Your task to perform on an android device: Open Google Chrome and open the bookmarks view Image 0: 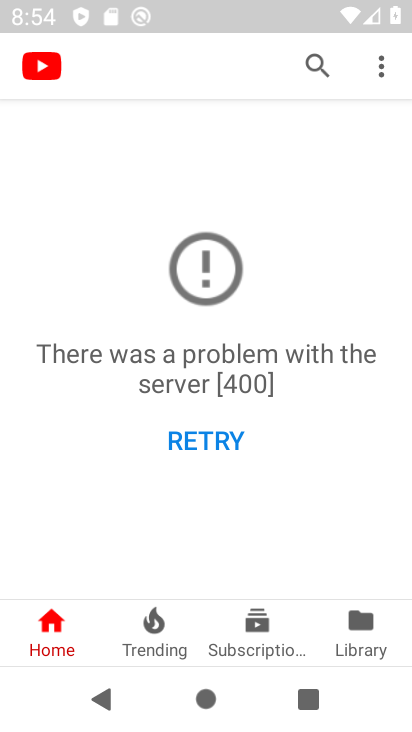
Step 0: press back button
Your task to perform on an android device: Open Google Chrome and open the bookmarks view Image 1: 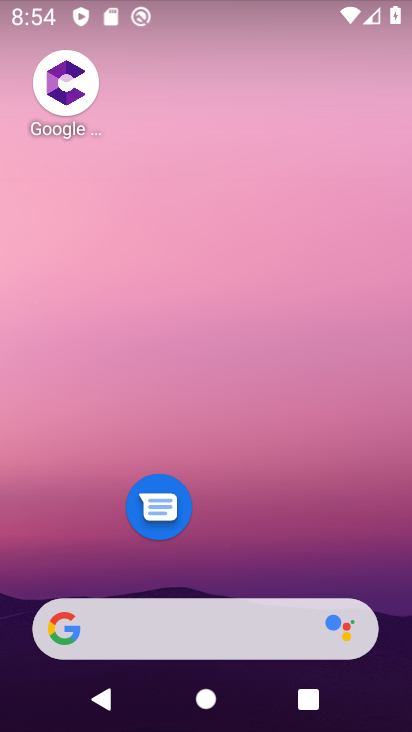
Step 1: drag from (78, 404) to (316, 458)
Your task to perform on an android device: Open Google Chrome and open the bookmarks view Image 2: 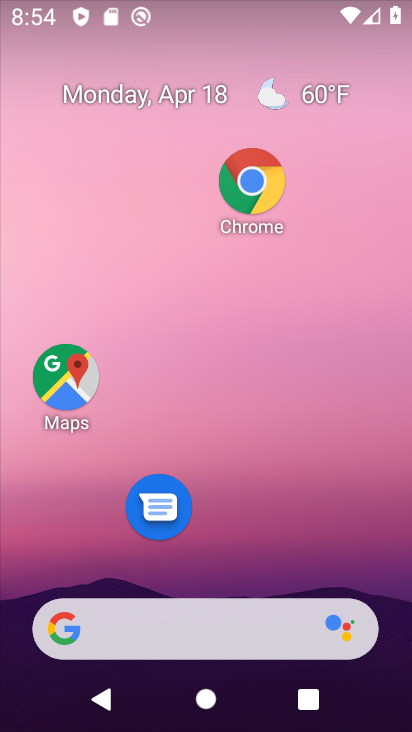
Step 2: click (264, 171)
Your task to perform on an android device: Open Google Chrome and open the bookmarks view Image 3: 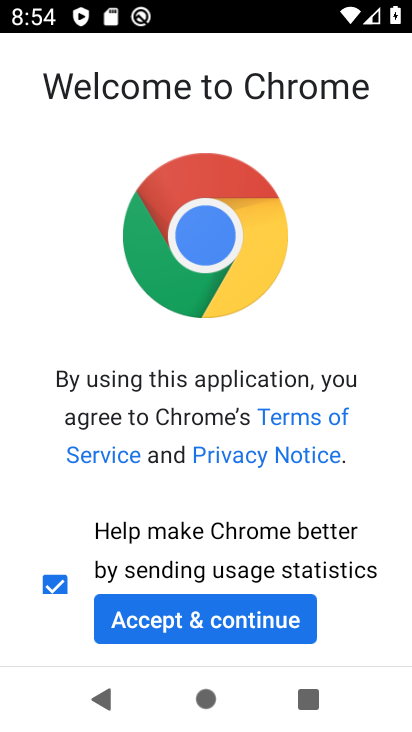
Step 3: click (184, 618)
Your task to perform on an android device: Open Google Chrome and open the bookmarks view Image 4: 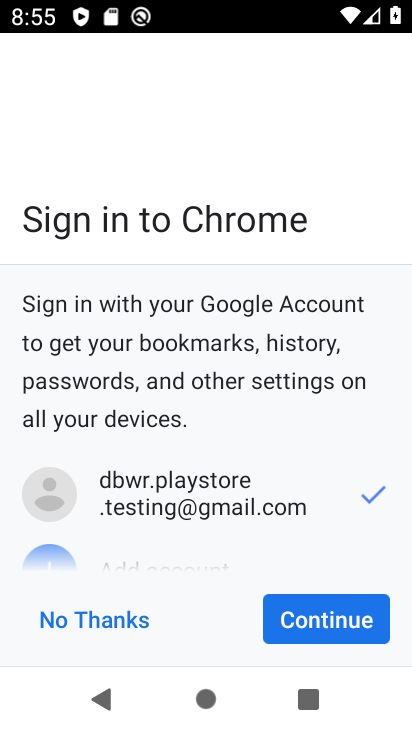
Step 4: click (279, 612)
Your task to perform on an android device: Open Google Chrome and open the bookmarks view Image 5: 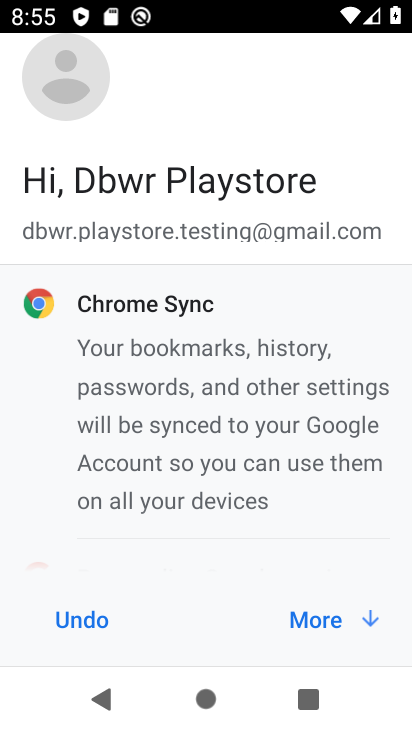
Step 5: click (307, 609)
Your task to perform on an android device: Open Google Chrome and open the bookmarks view Image 6: 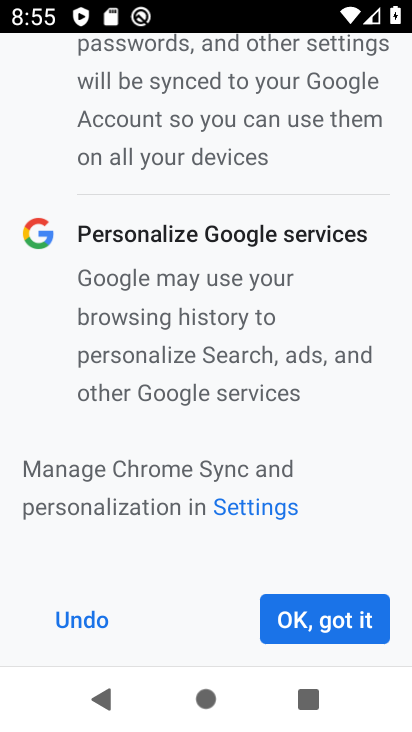
Step 6: click (307, 609)
Your task to perform on an android device: Open Google Chrome and open the bookmarks view Image 7: 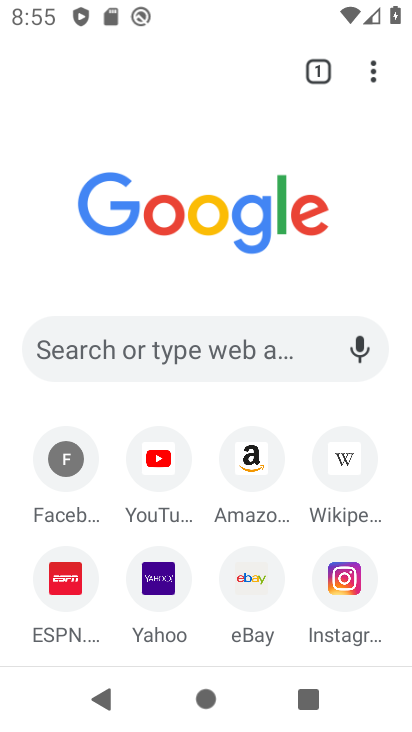
Step 7: click (382, 69)
Your task to perform on an android device: Open Google Chrome and open the bookmarks view Image 8: 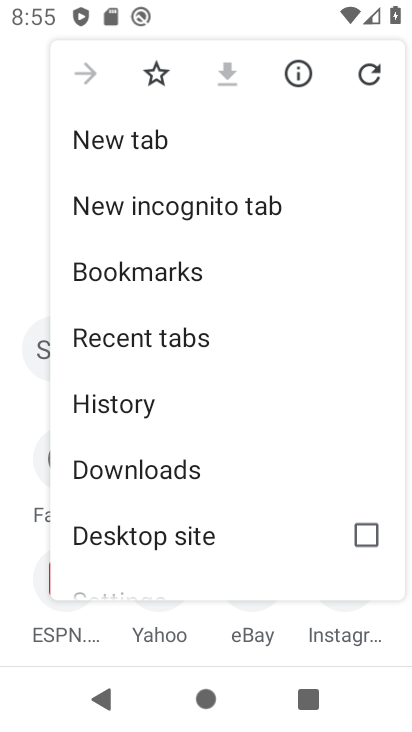
Step 8: click (122, 280)
Your task to perform on an android device: Open Google Chrome and open the bookmarks view Image 9: 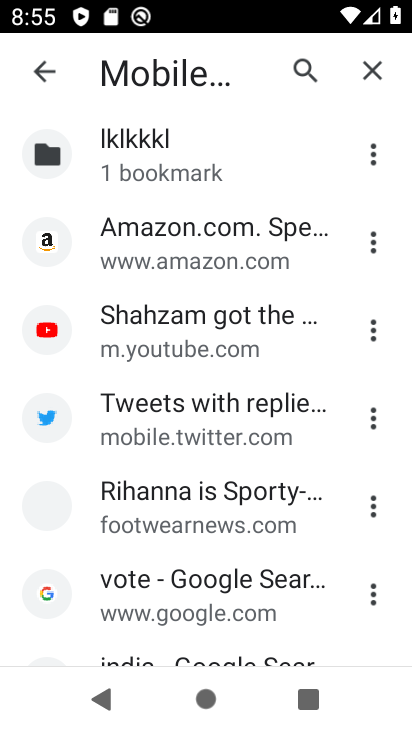
Step 9: click (184, 258)
Your task to perform on an android device: Open Google Chrome and open the bookmarks view Image 10: 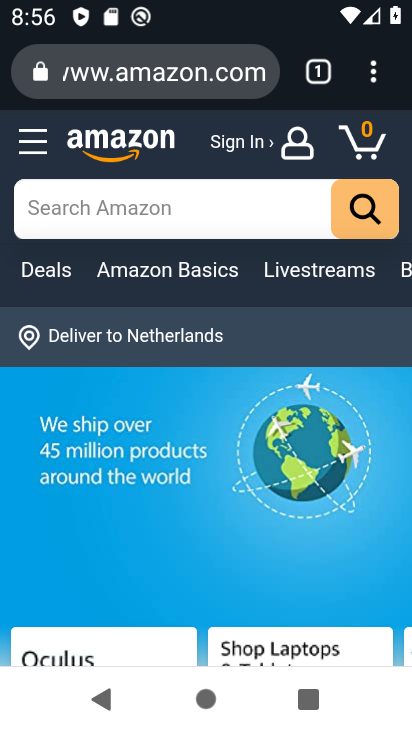
Step 10: task complete